Your task to perform on an android device: Play the last video I watched on Youtube Image 0: 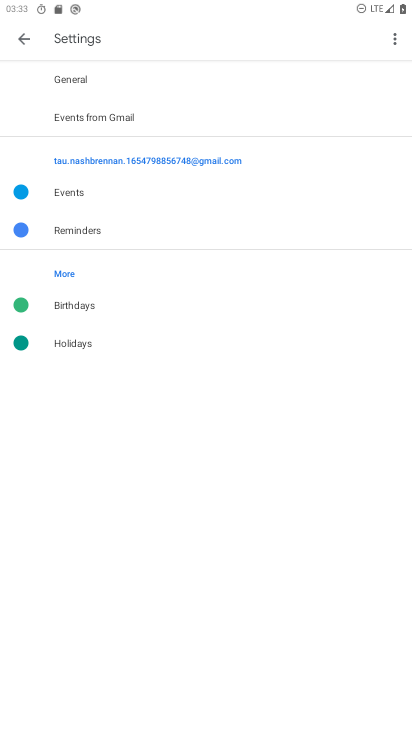
Step 0: press home button
Your task to perform on an android device: Play the last video I watched on Youtube Image 1: 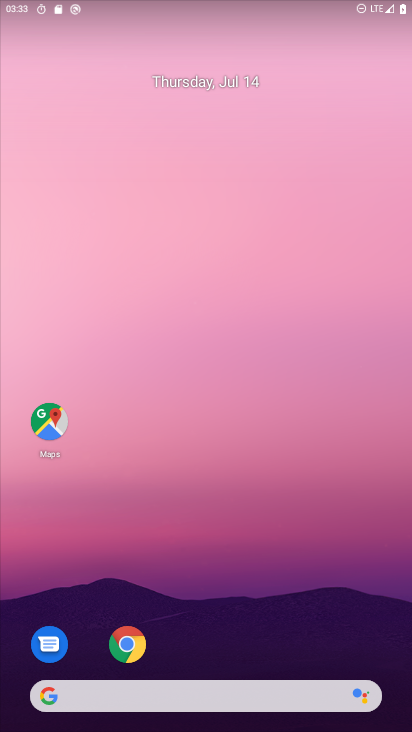
Step 1: drag from (237, 595) to (259, 107)
Your task to perform on an android device: Play the last video I watched on Youtube Image 2: 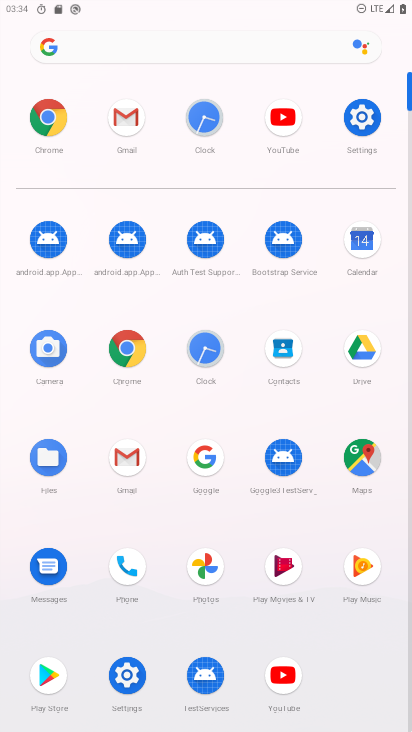
Step 2: click (283, 118)
Your task to perform on an android device: Play the last video I watched on Youtube Image 3: 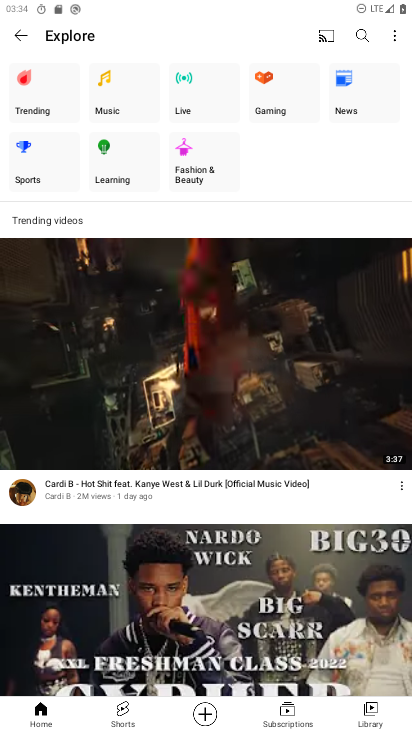
Step 3: click (377, 709)
Your task to perform on an android device: Play the last video I watched on Youtube Image 4: 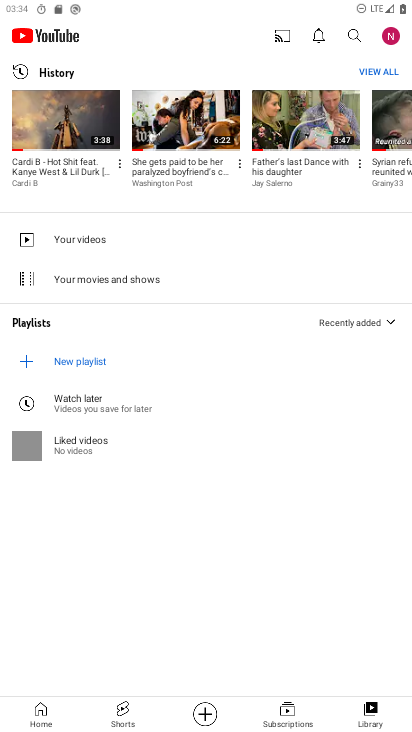
Step 4: click (85, 124)
Your task to perform on an android device: Play the last video I watched on Youtube Image 5: 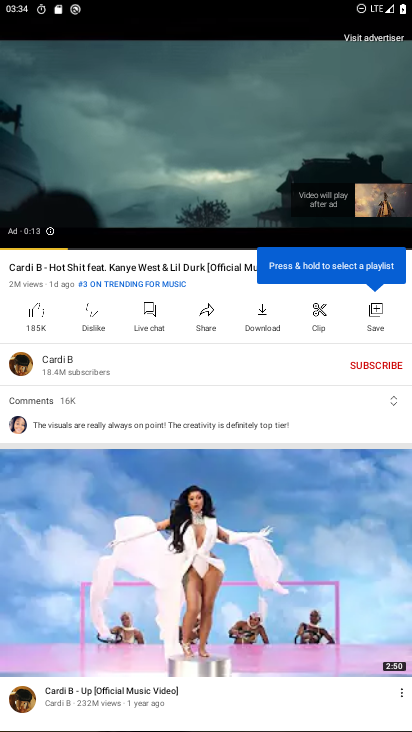
Step 5: task complete